Your task to perform on an android device: manage bookmarks in the chrome app Image 0: 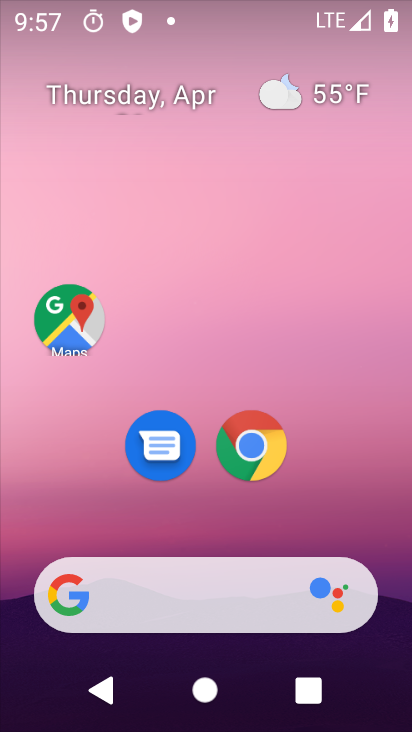
Step 0: click (256, 451)
Your task to perform on an android device: manage bookmarks in the chrome app Image 1: 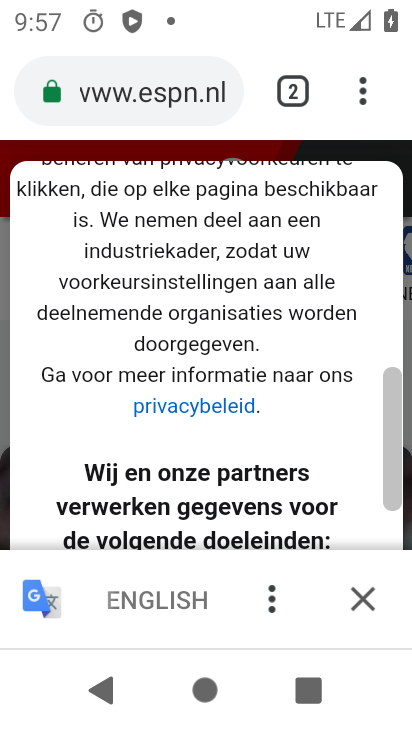
Step 1: click (366, 98)
Your task to perform on an android device: manage bookmarks in the chrome app Image 2: 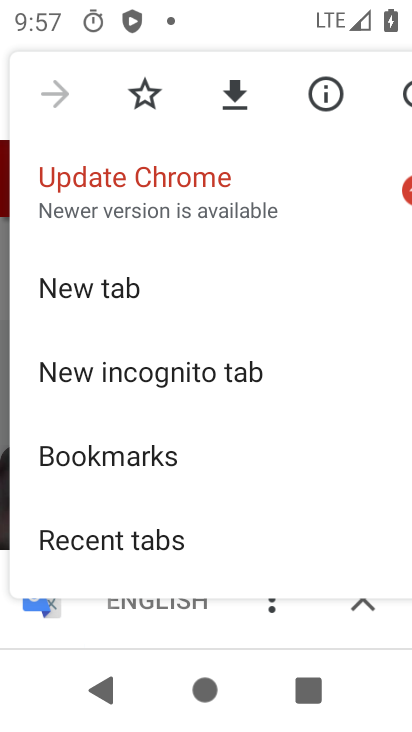
Step 2: click (160, 463)
Your task to perform on an android device: manage bookmarks in the chrome app Image 3: 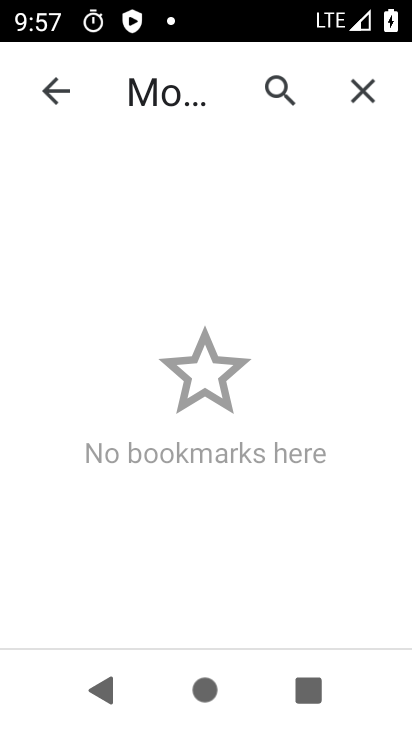
Step 3: task complete